Your task to perform on an android device: Find coffee shops on Maps Image 0: 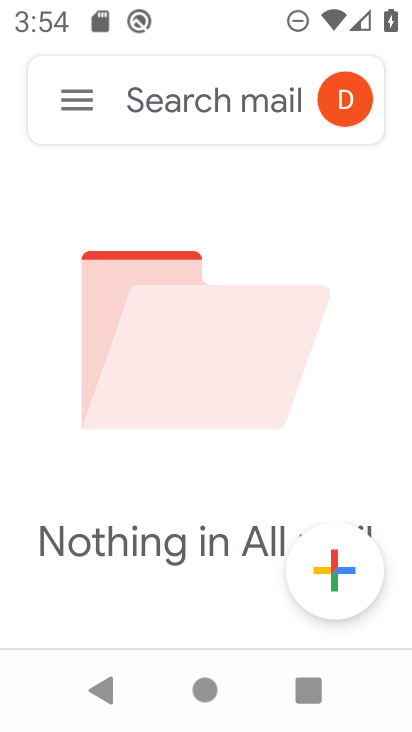
Step 0: press home button
Your task to perform on an android device: Find coffee shops on Maps Image 1: 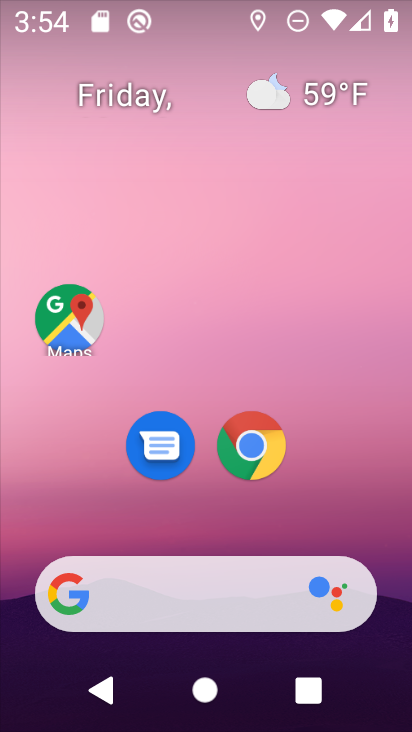
Step 1: click (66, 318)
Your task to perform on an android device: Find coffee shops on Maps Image 2: 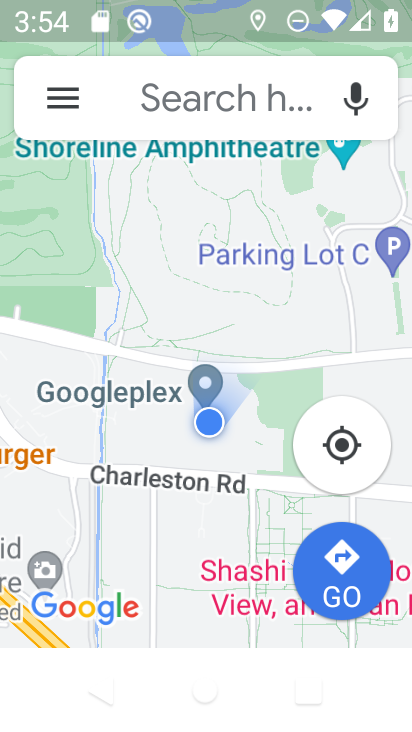
Step 2: click (187, 96)
Your task to perform on an android device: Find coffee shops on Maps Image 3: 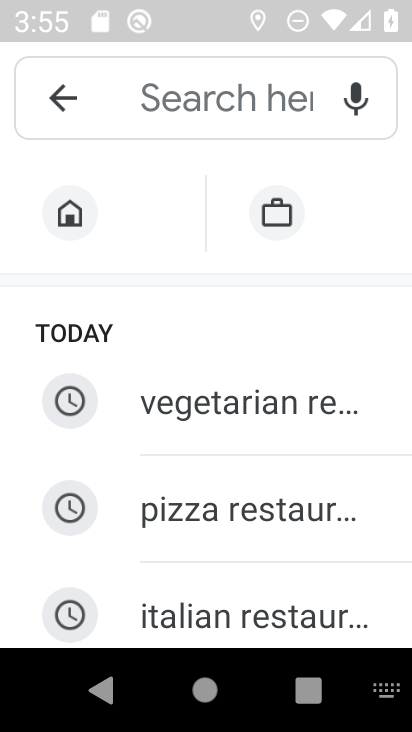
Step 3: type "coffee"
Your task to perform on an android device: Find coffee shops on Maps Image 4: 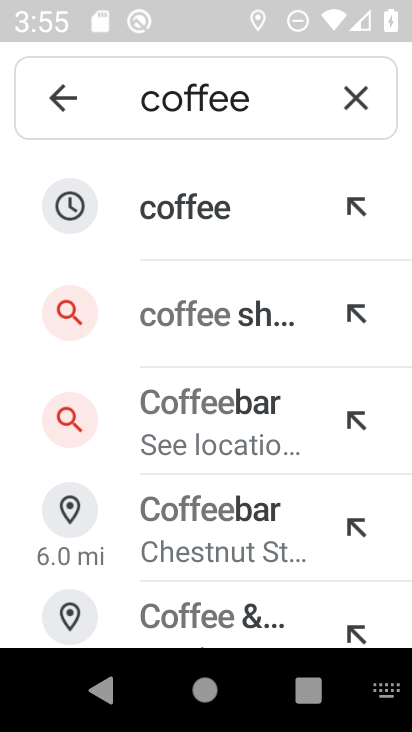
Step 4: click (228, 319)
Your task to perform on an android device: Find coffee shops on Maps Image 5: 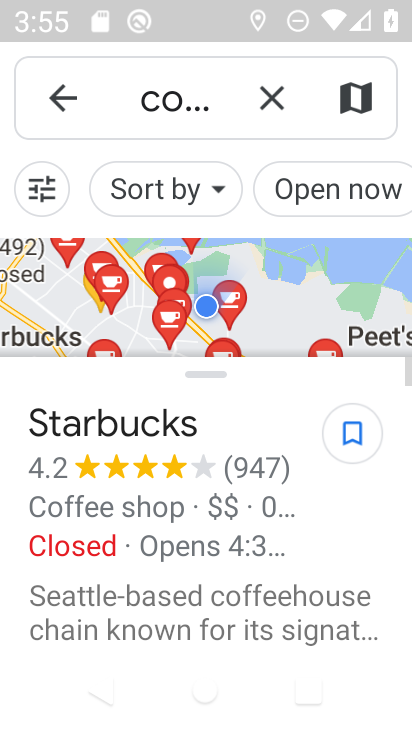
Step 5: task complete